Your task to perform on an android device: What's the weather today? Image 0: 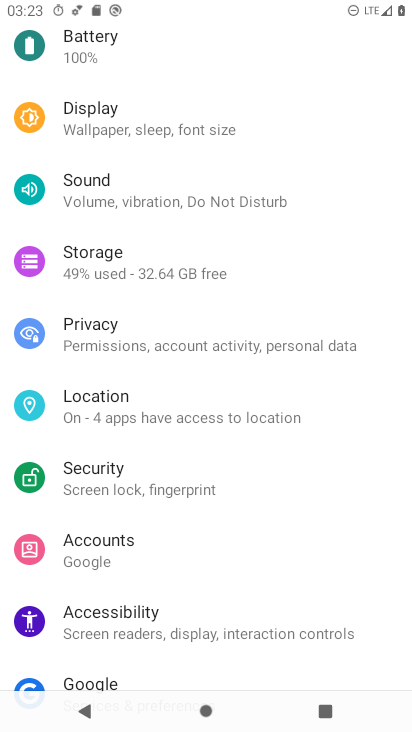
Step 0: press home button
Your task to perform on an android device: What's the weather today? Image 1: 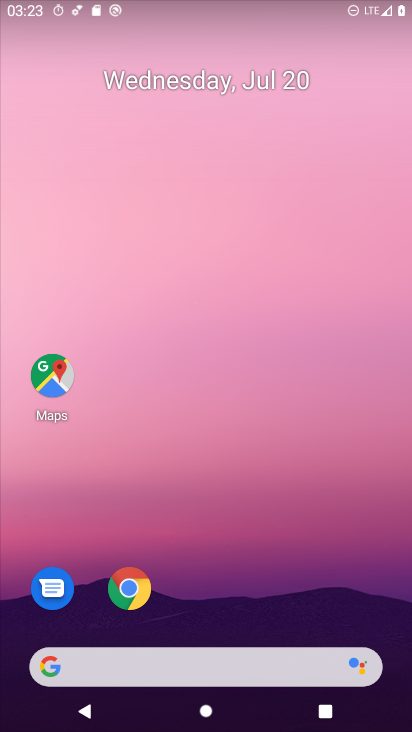
Step 1: click (206, 649)
Your task to perform on an android device: What's the weather today? Image 2: 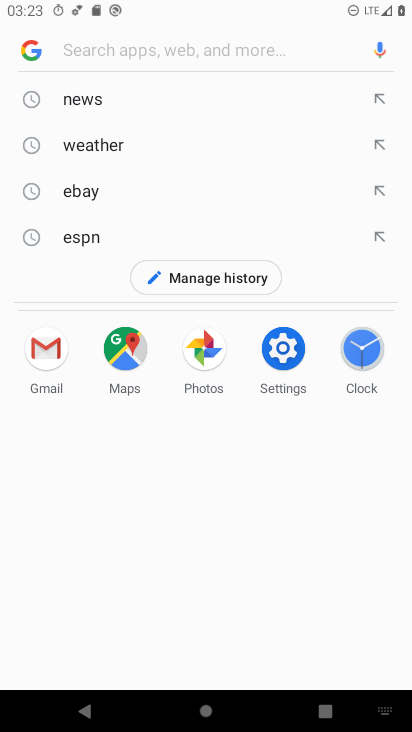
Step 2: click (79, 157)
Your task to perform on an android device: What's the weather today? Image 3: 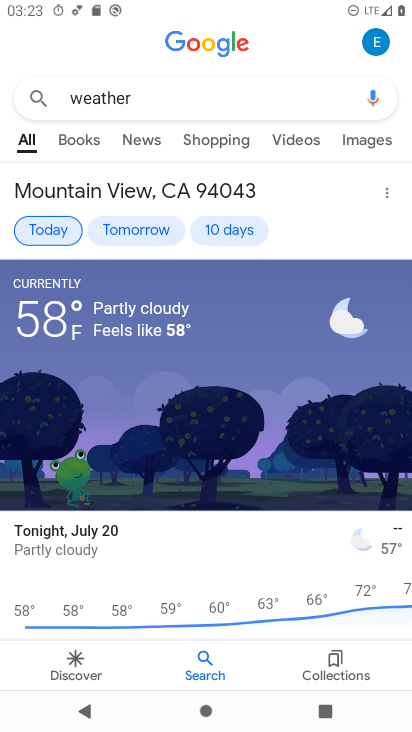
Step 3: task complete